Your task to perform on an android device: Open battery settings Image 0: 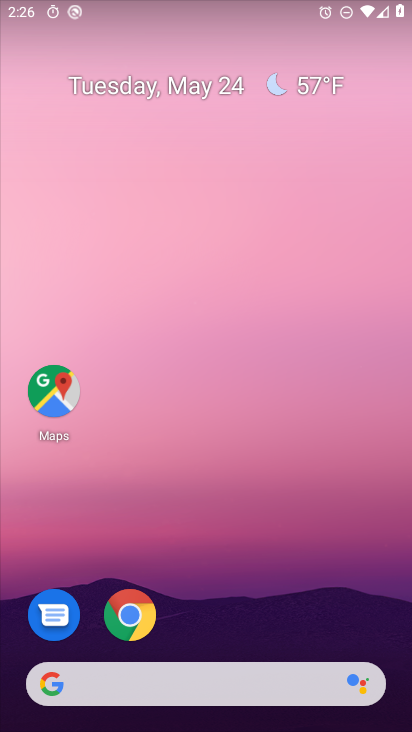
Step 0: drag from (185, 529) to (185, 149)
Your task to perform on an android device: Open battery settings Image 1: 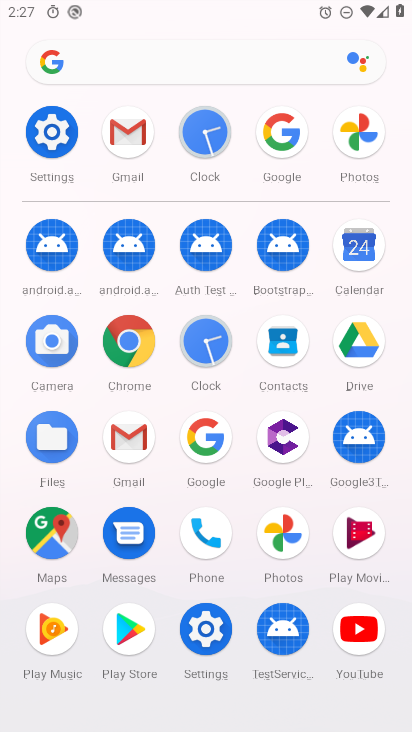
Step 1: click (62, 132)
Your task to perform on an android device: Open battery settings Image 2: 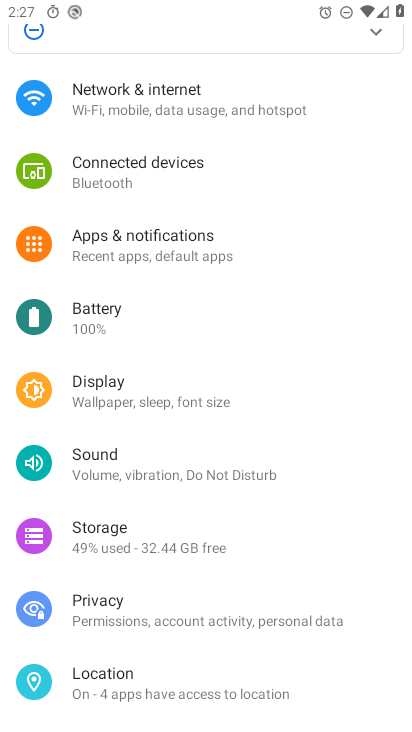
Step 2: click (108, 313)
Your task to perform on an android device: Open battery settings Image 3: 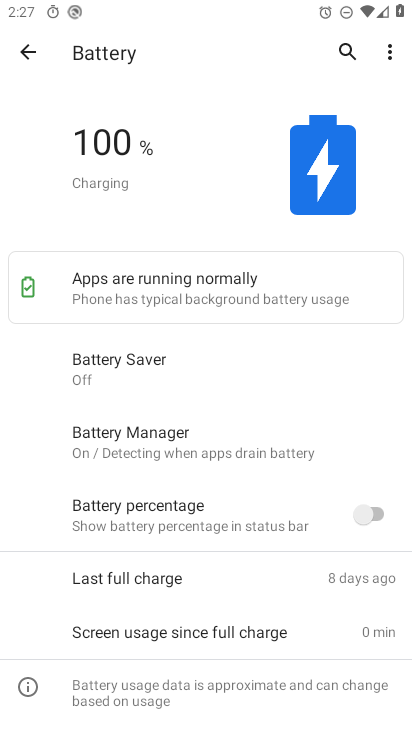
Step 3: task complete